Your task to perform on an android device: Go to settings Image 0: 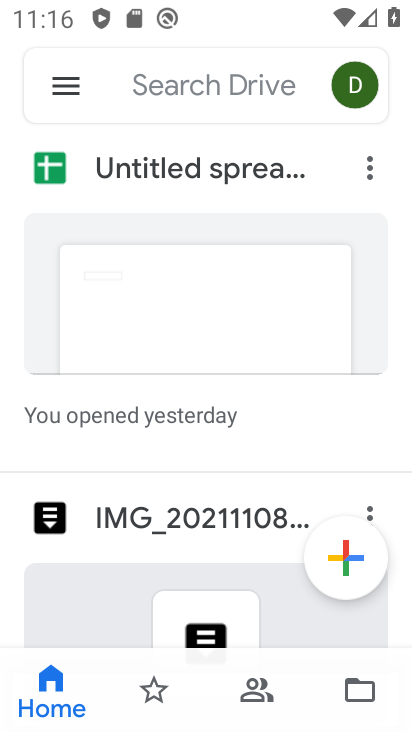
Step 0: press home button
Your task to perform on an android device: Go to settings Image 1: 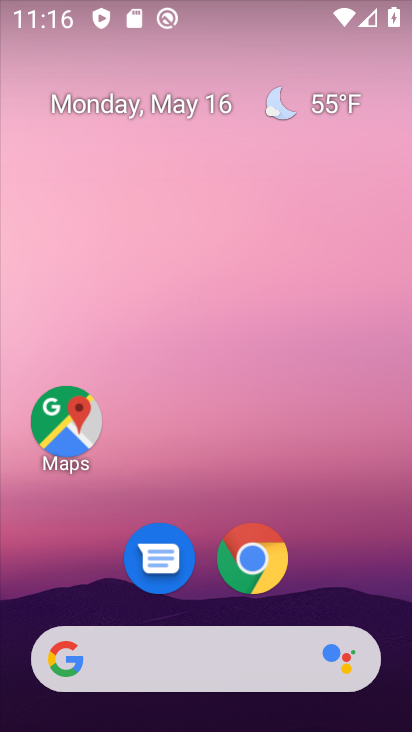
Step 1: drag from (204, 584) to (253, 120)
Your task to perform on an android device: Go to settings Image 2: 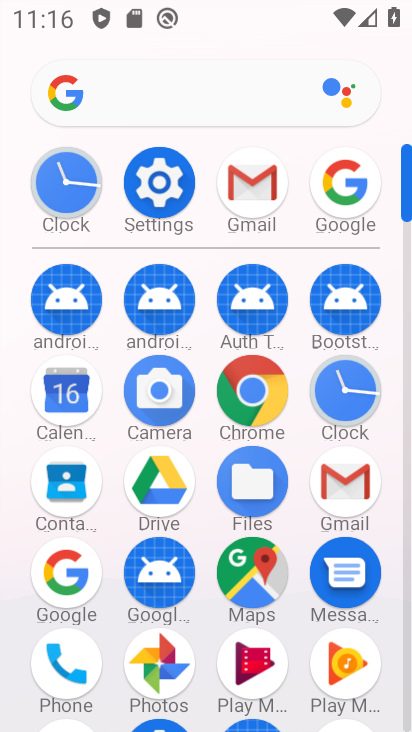
Step 2: click (156, 182)
Your task to perform on an android device: Go to settings Image 3: 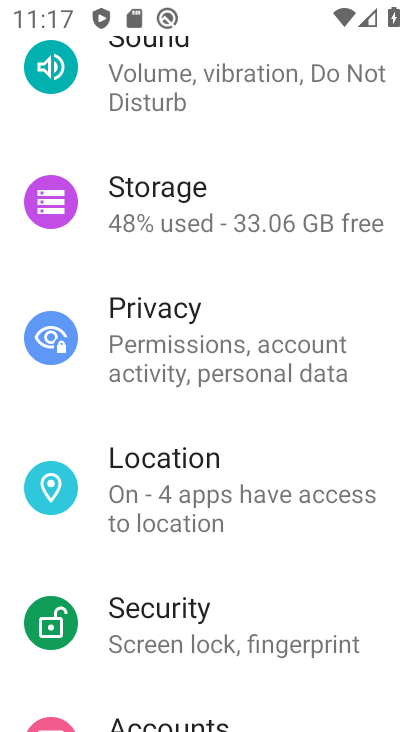
Step 3: task complete